Your task to perform on an android device: Open network settings Image 0: 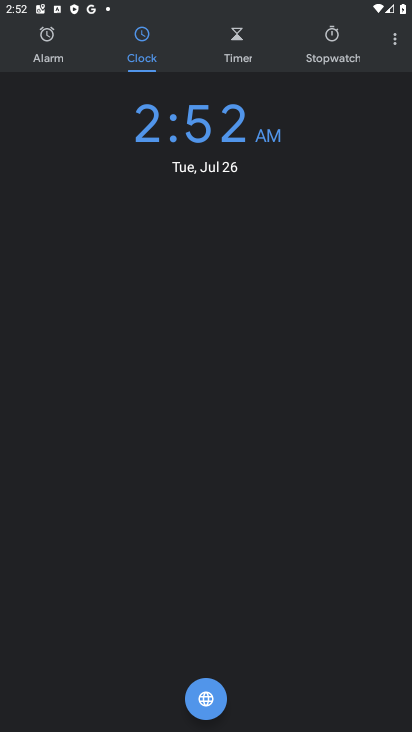
Step 0: press home button
Your task to perform on an android device: Open network settings Image 1: 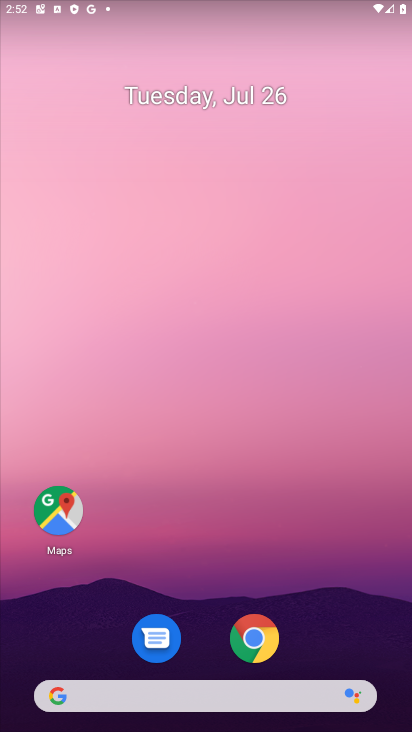
Step 1: drag from (189, 721) to (239, 72)
Your task to perform on an android device: Open network settings Image 2: 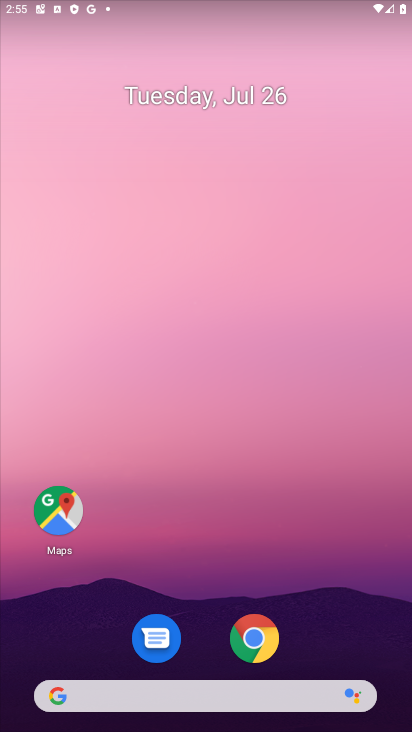
Step 2: drag from (193, 705) to (196, 332)
Your task to perform on an android device: Open network settings Image 3: 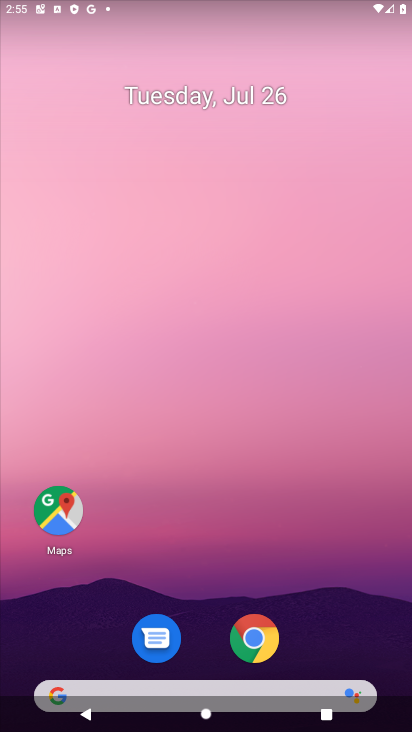
Step 3: drag from (269, 723) to (267, 57)
Your task to perform on an android device: Open network settings Image 4: 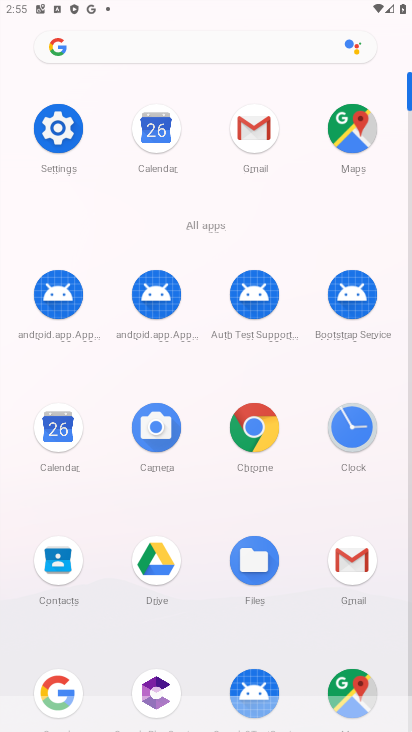
Step 4: click (57, 128)
Your task to perform on an android device: Open network settings Image 5: 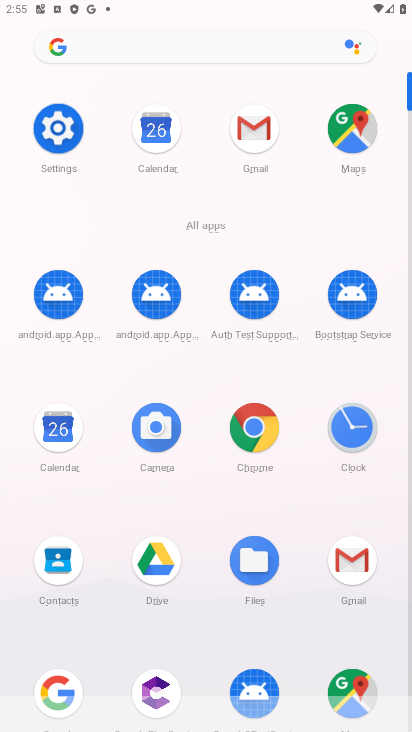
Step 5: click (57, 128)
Your task to perform on an android device: Open network settings Image 6: 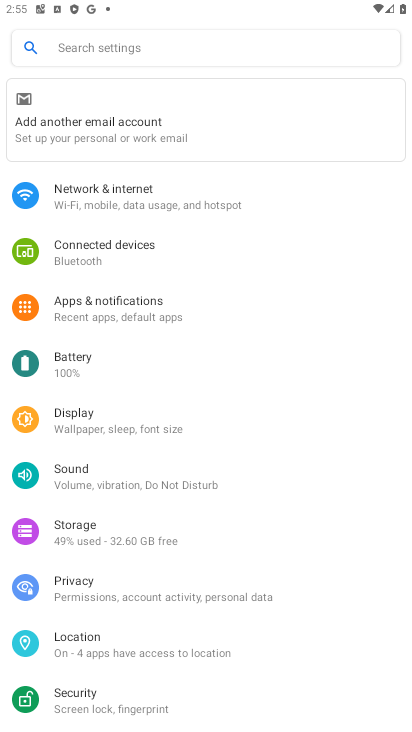
Step 6: click (108, 190)
Your task to perform on an android device: Open network settings Image 7: 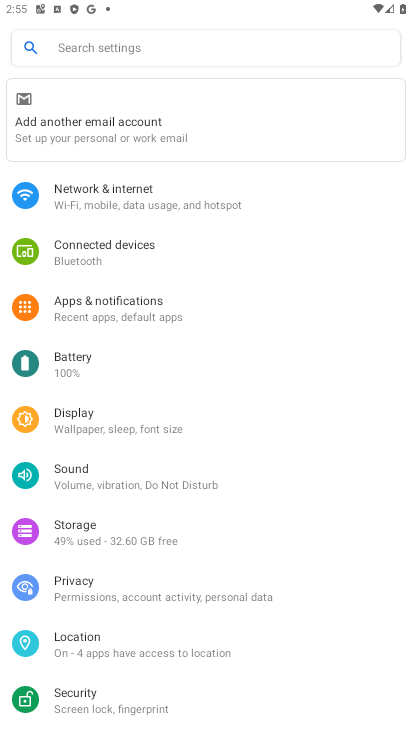
Step 7: click (108, 190)
Your task to perform on an android device: Open network settings Image 8: 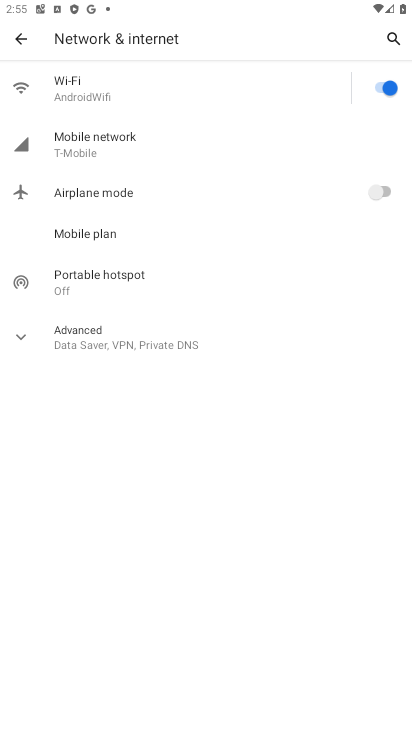
Step 8: task complete